Your task to perform on an android device: install app "DoorDash - Dasher" Image 0: 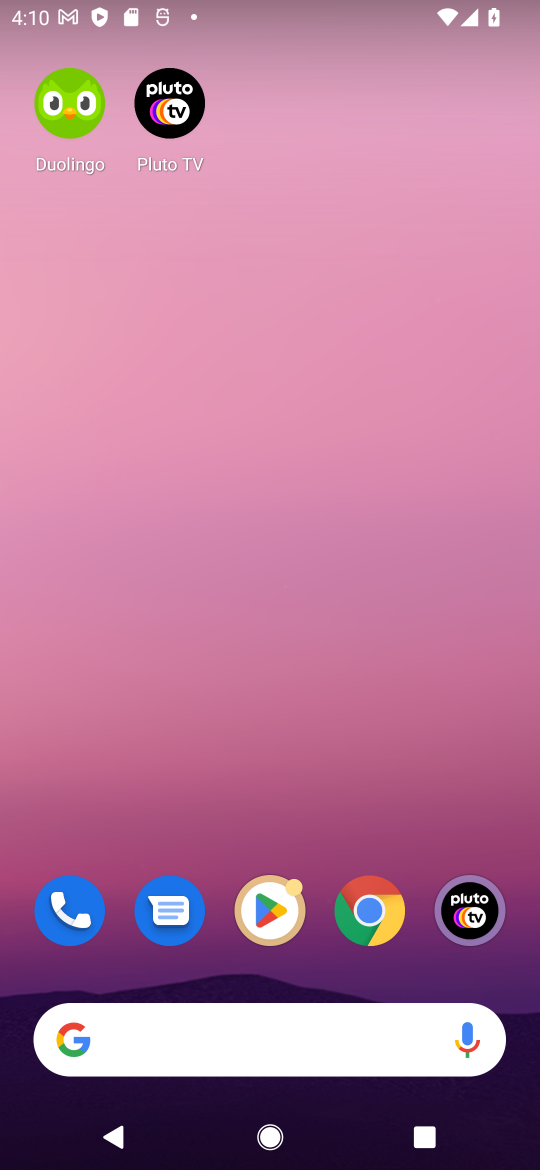
Step 0: click (261, 911)
Your task to perform on an android device: install app "DoorDash - Dasher" Image 1: 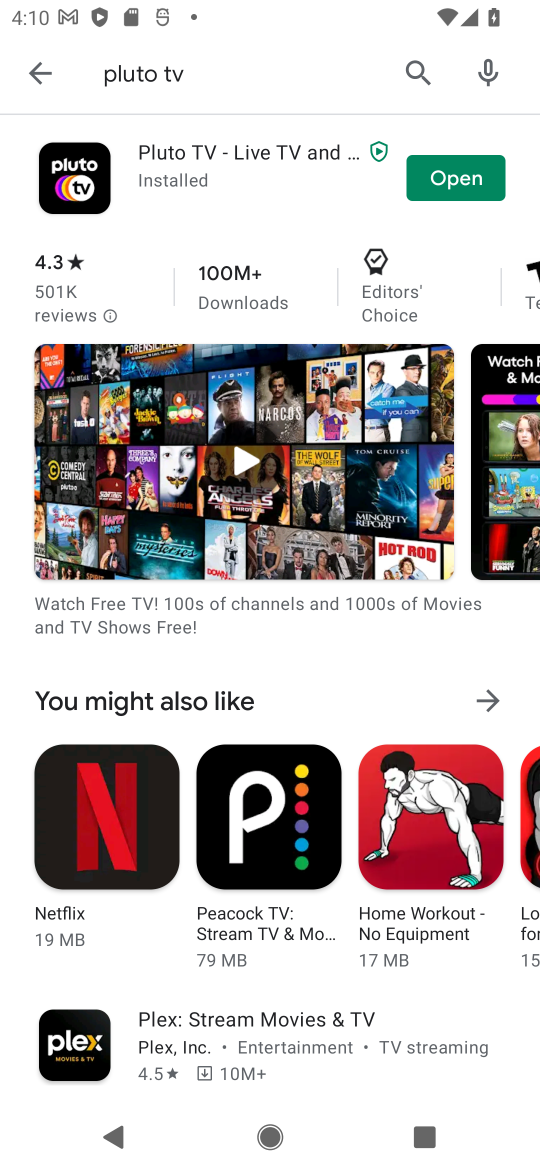
Step 1: click (413, 65)
Your task to perform on an android device: install app "DoorDash - Dasher" Image 2: 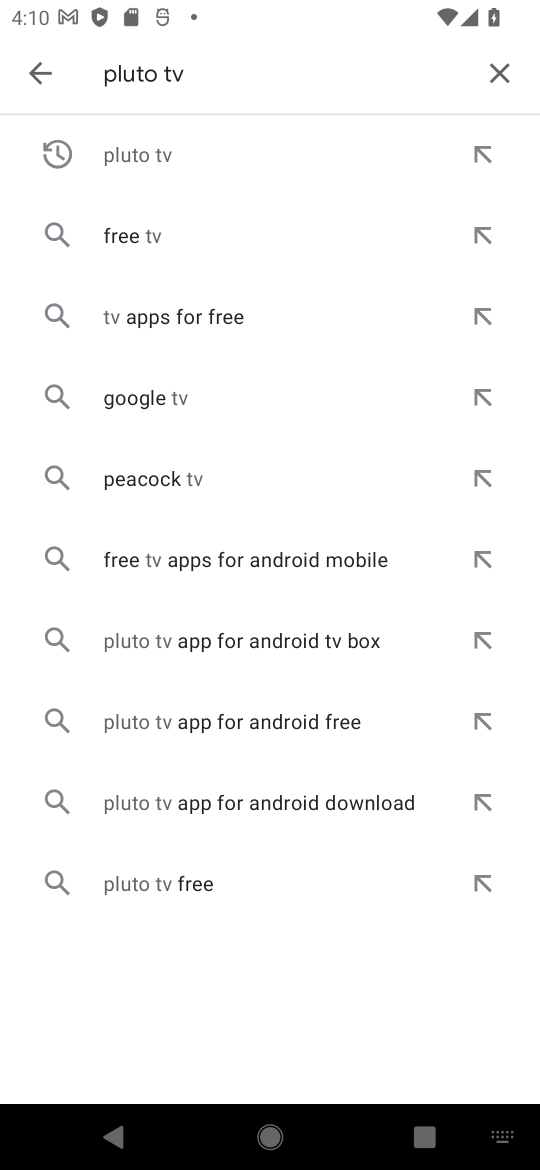
Step 2: click (503, 62)
Your task to perform on an android device: install app "DoorDash - Dasher" Image 3: 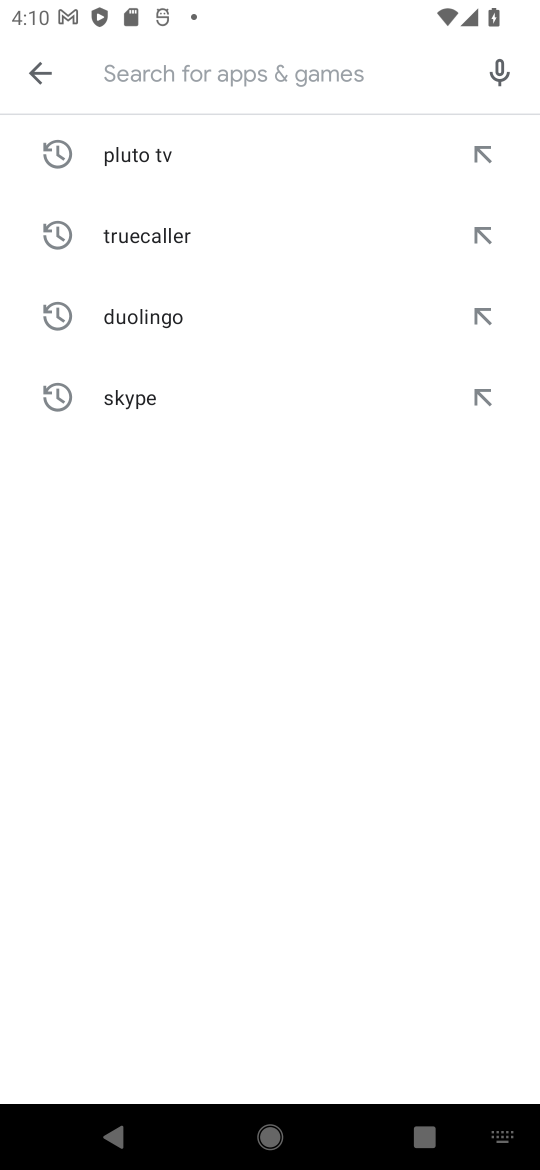
Step 3: click (228, 97)
Your task to perform on an android device: install app "DoorDash - Dasher" Image 4: 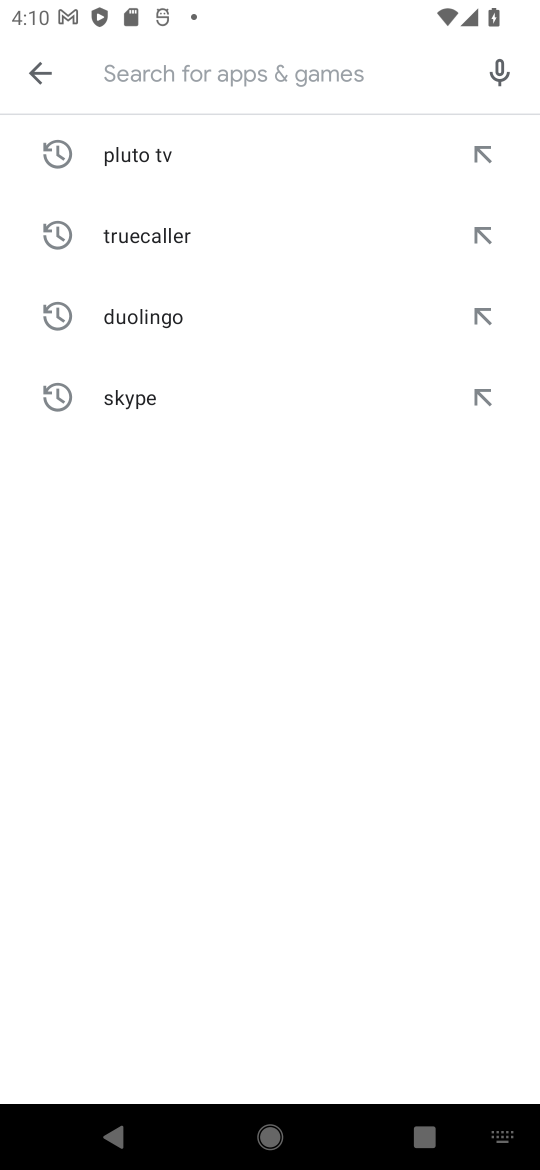
Step 4: type "door dash"
Your task to perform on an android device: install app "DoorDash - Dasher" Image 5: 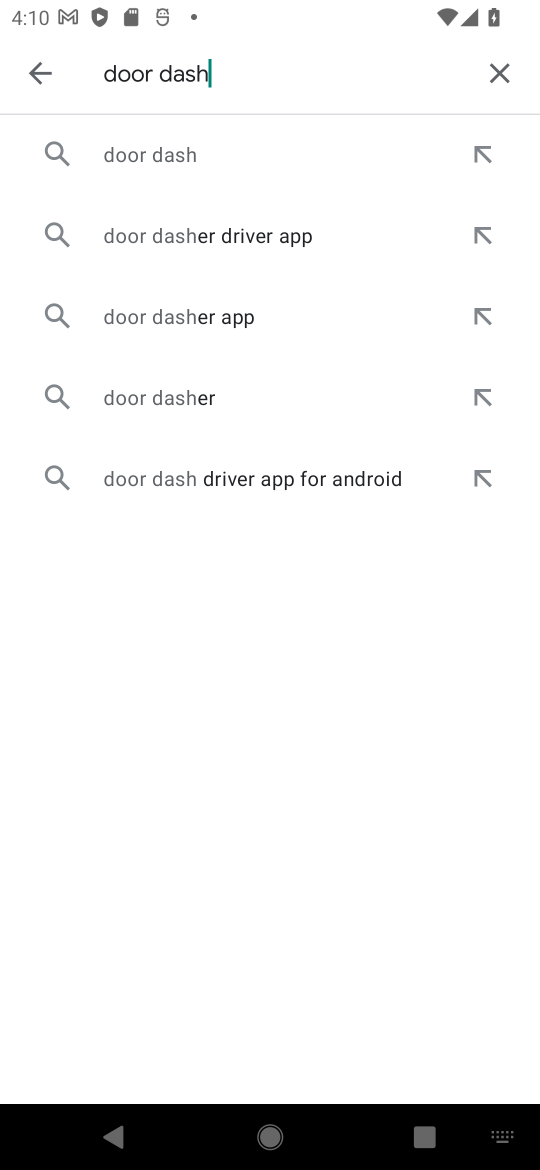
Step 5: click (141, 143)
Your task to perform on an android device: install app "DoorDash - Dasher" Image 6: 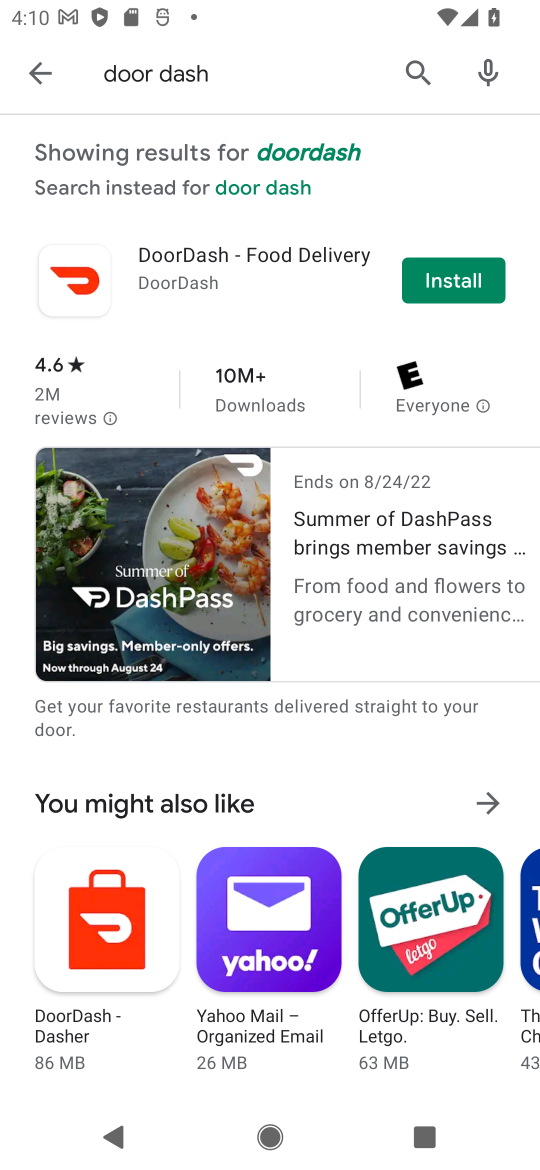
Step 6: click (25, 920)
Your task to perform on an android device: install app "DoorDash - Dasher" Image 7: 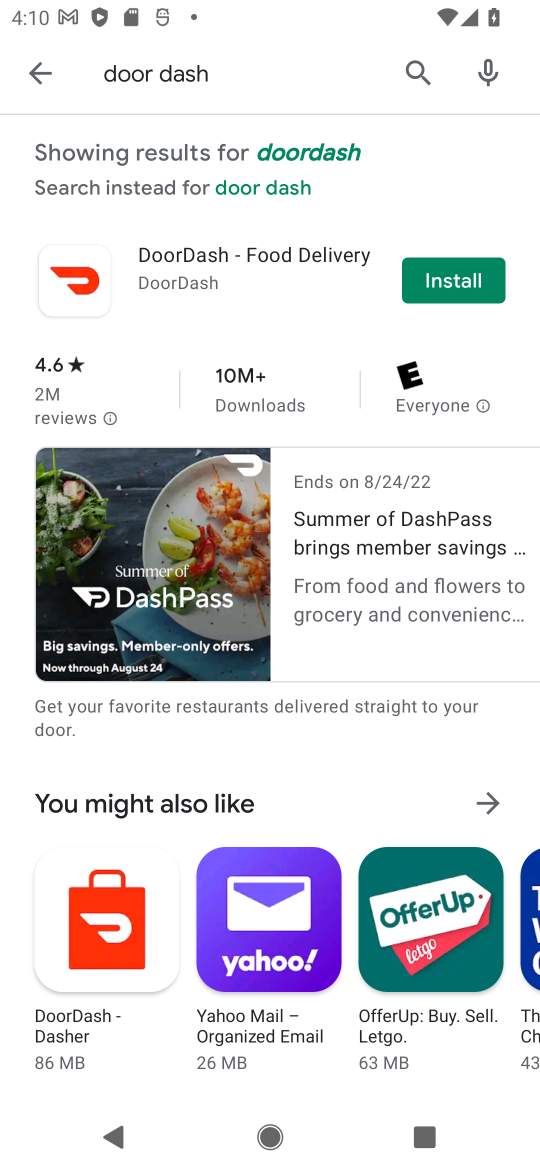
Step 7: click (93, 906)
Your task to perform on an android device: install app "DoorDash - Dasher" Image 8: 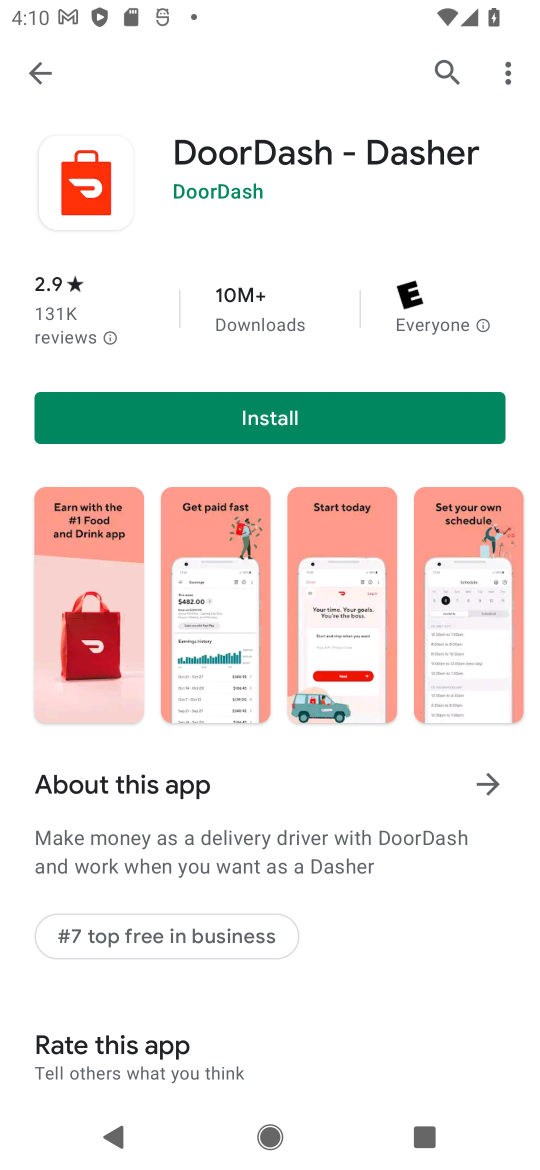
Step 8: click (258, 407)
Your task to perform on an android device: install app "DoorDash - Dasher" Image 9: 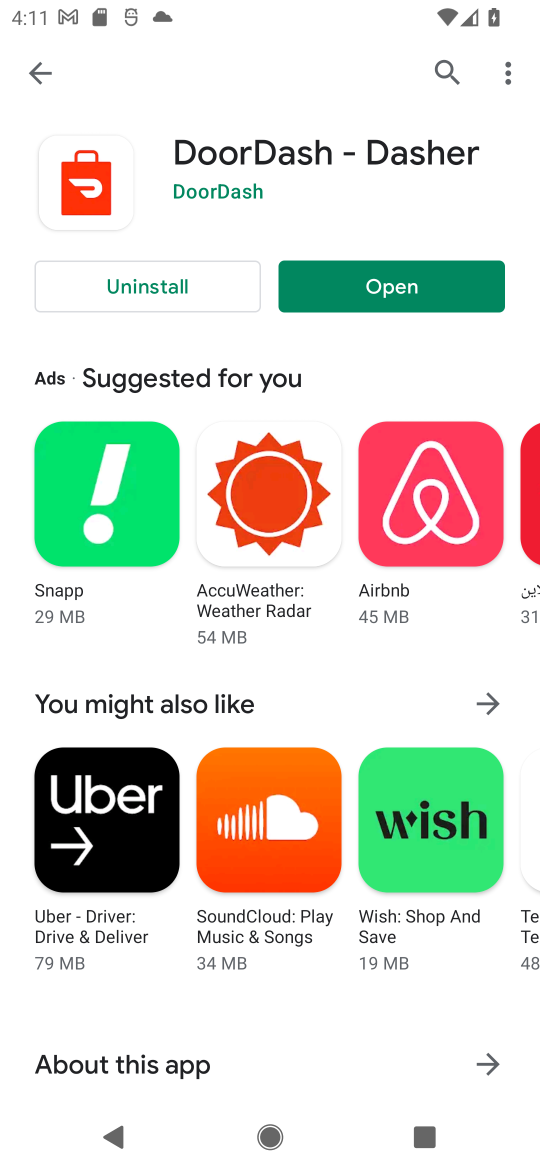
Step 9: click (377, 283)
Your task to perform on an android device: install app "DoorDash - Dasher" Image 10: 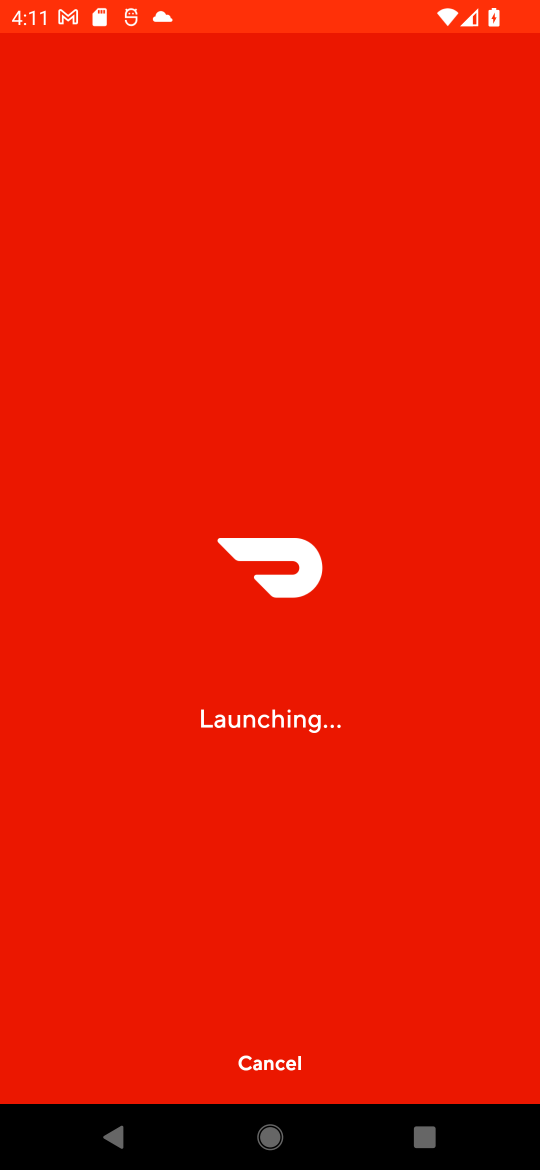
Step 10: task complete